Your task to perform on an android device: Go to Yahoo.com Image 0: 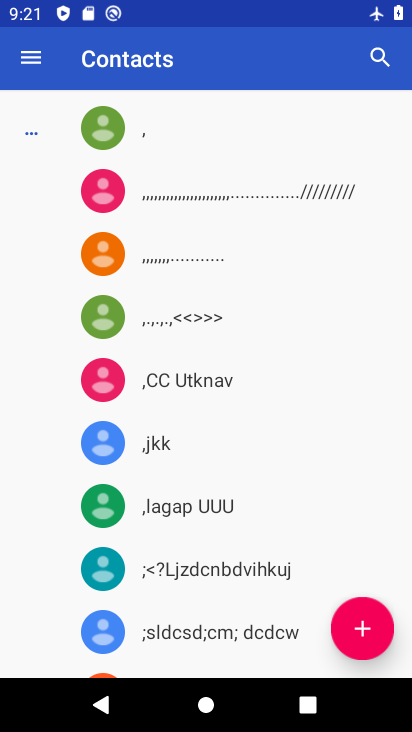
Step 0: press home button
Your task to perform on an android device: Go to Yahoo.com Image 1: 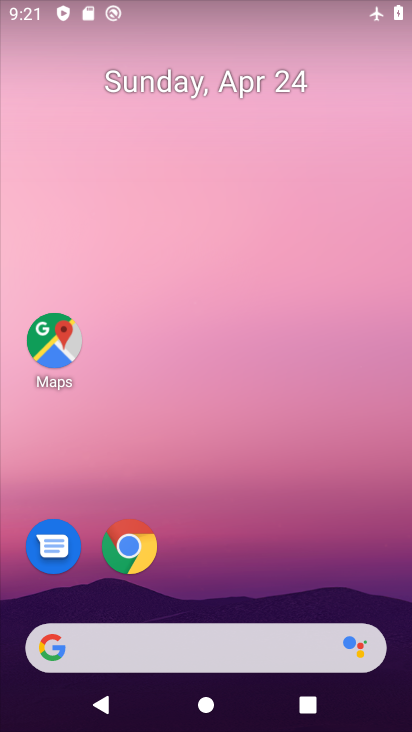
Step 1: drag from (244, 478) to (221, 256)
Your task to perform on an android device: Go to Yahoo.com Image 2: 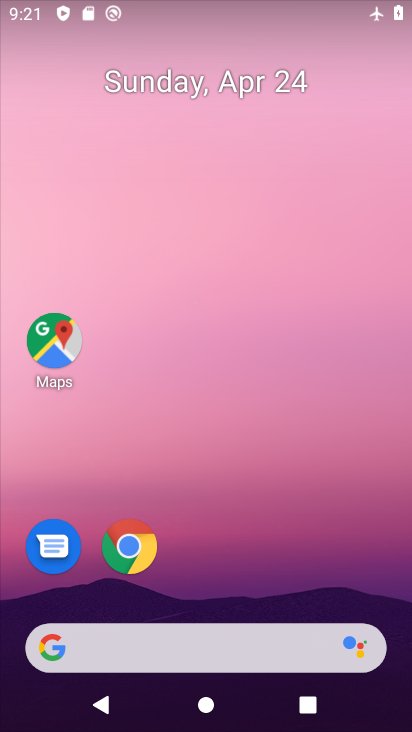
Step 2: drag from (237, 465) to (261, 303)
Your task to perform on an android device: Go to Yahoo.com Image 3: 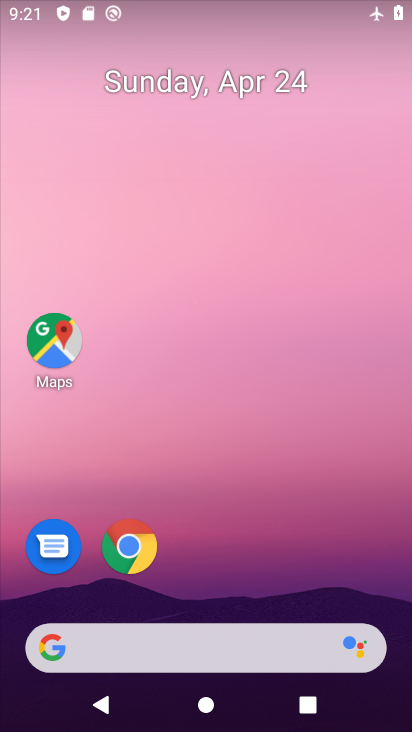
Step 3: drag from (251, 554) to (254, 458)
Your task to perform on an android device: Go to Yahoo.com Image 4: 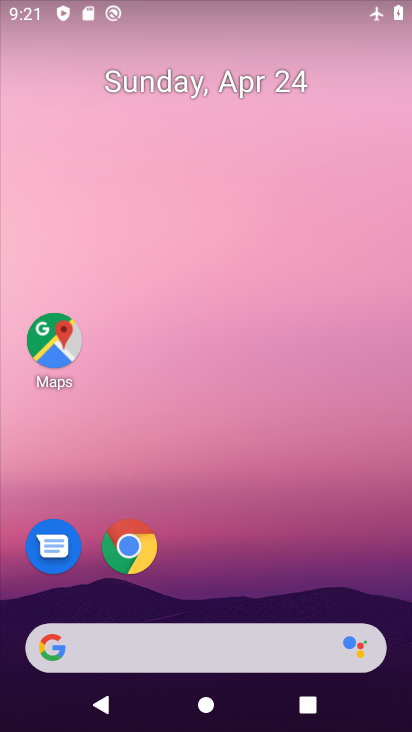
Step 4: drag from (237, 578) to (305, 144)
Your task to perform on an android device: Go to Yahoo.com Image 5: 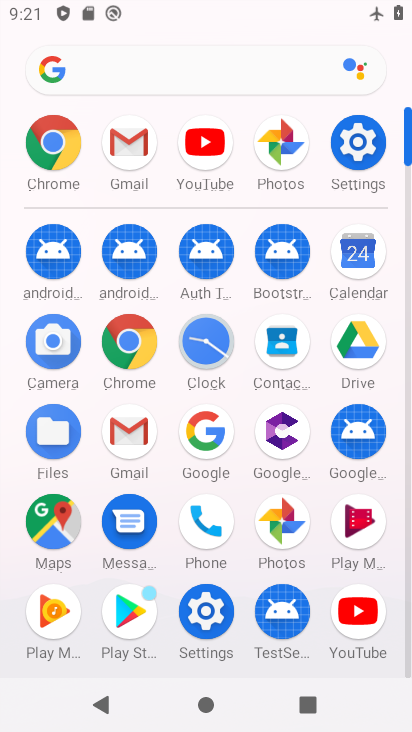
Step 5: click (129, 340)
Your task to perform on an android device: Go to Yahoo.com Image 6: 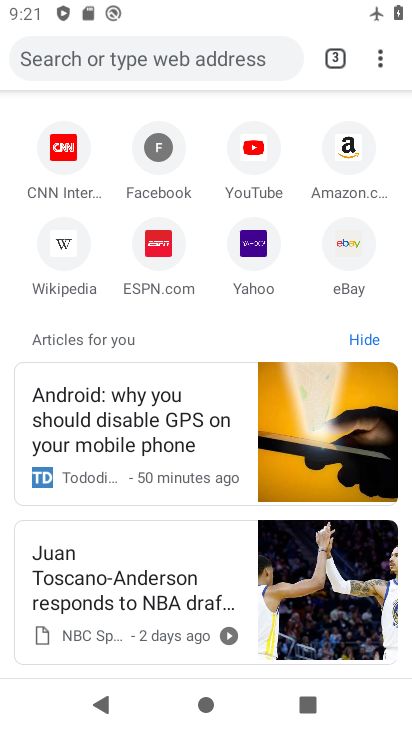
Step 6: click (244, 237)
Your task to perform on an android device: Go to Yahoo.com Image 7: 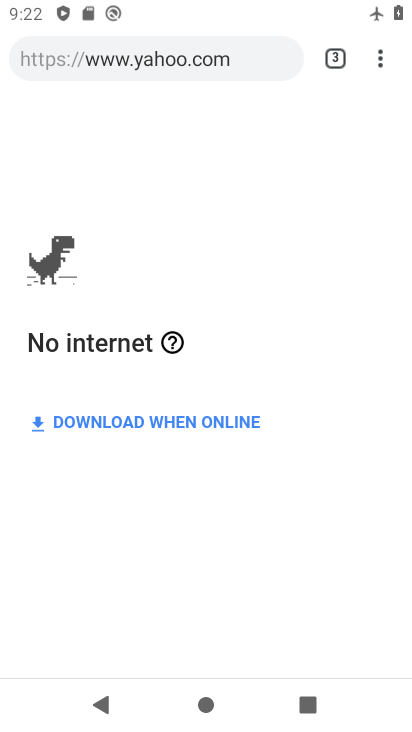
Step 7: task complete